Your task to perform on an android device: Go to notification settings Image 0: 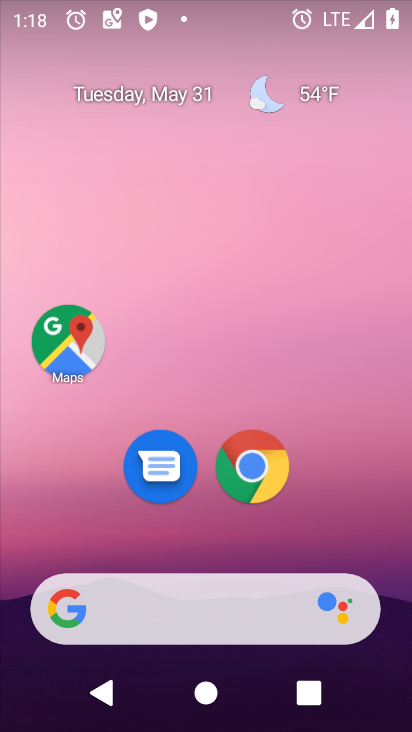
Step 0: press home button
Your task to perform on an android device: Go to notification settings Image 1: 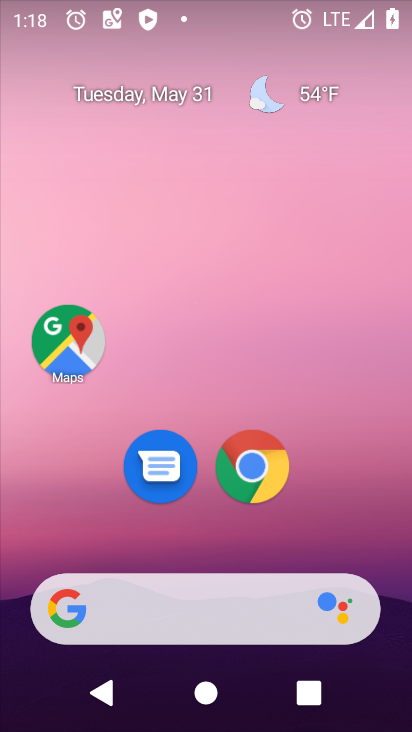
Step 1: drag from (255, 604) to (14, 298)
Your task to perform on an android device: Go to notification settings Image 2: 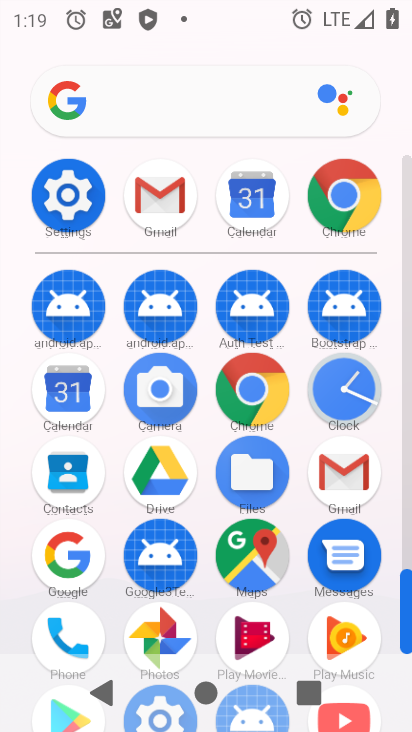
Step 2: click (73, 202)
Your task to perform on an android device: Go to notification settings Image 3: 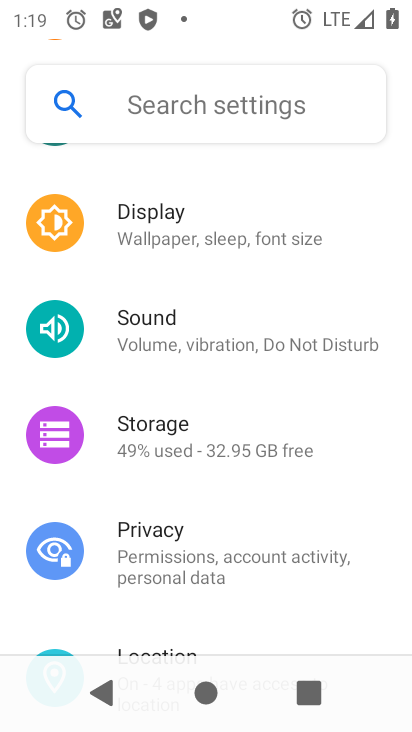
Step 3: drag from (217, 569) to (187, 0)
Your task to perform on an android device: Go to notification settings Image 4: 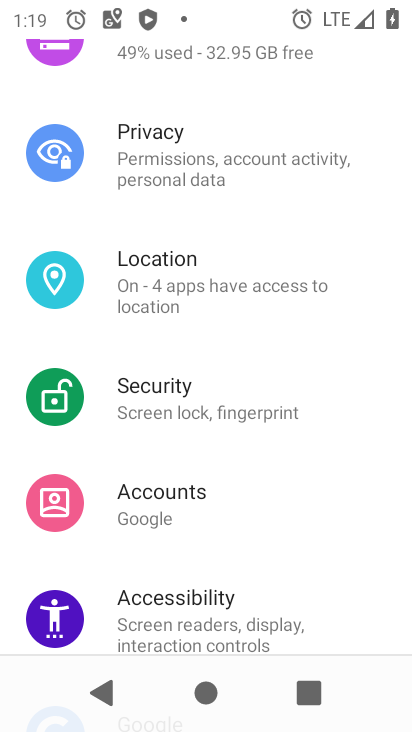
Step 4: drag from (177, 312) to (203, 703)
Your task to perform on an android device: Go to notification settings Image 5: 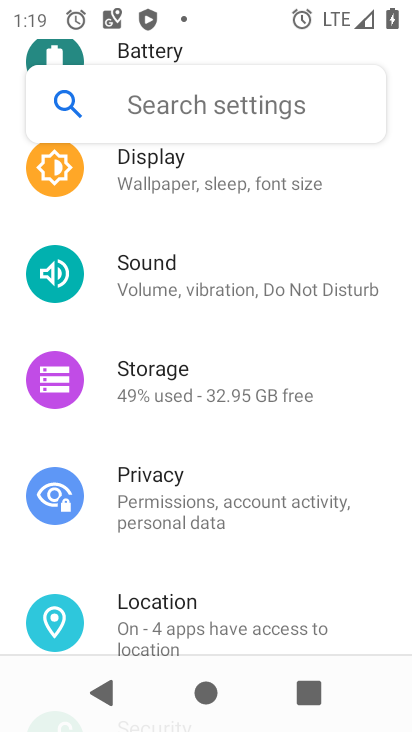
Step 5: drag from (209, 226) to (294, 683)
Your task to perform on an android device: Go to notification settings Image 6: 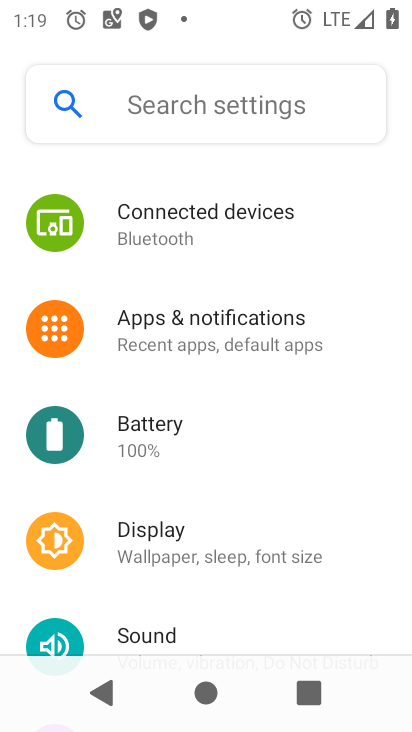
Step 6: click (209, 347)
Your task to perform on an android device: Go to notification settings Image 7: 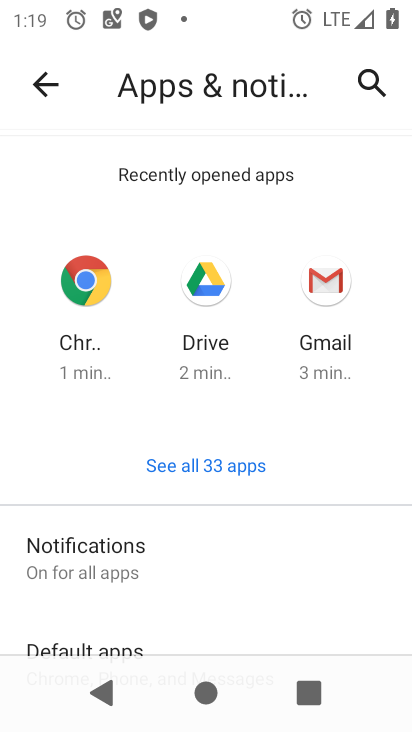
Step 7: task complete